Your task to perform on an android device: toggle wifi Image 0: 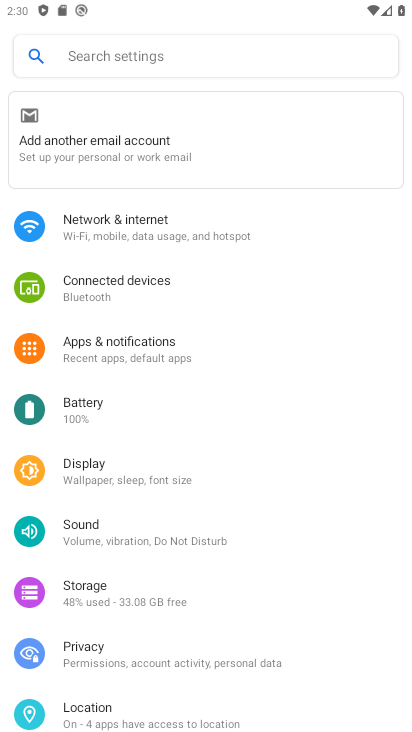
Step 0: press home button
Your task to perform on an android device: toggle wifi Image 1: 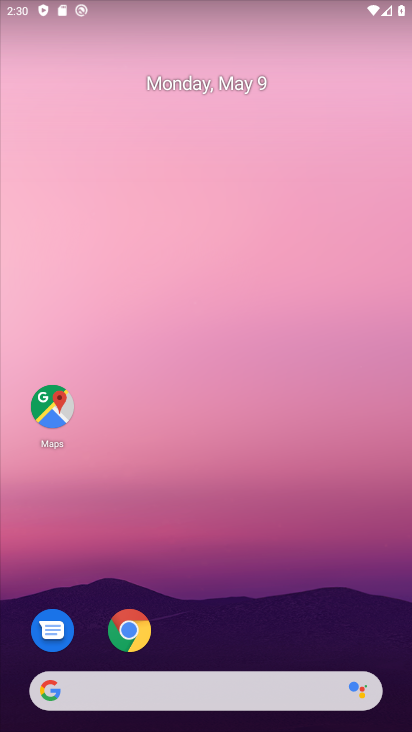
Step 1: drag from (343, 2) to (139, 729)
Your task to perform on an android device: toggle wifi Image 2: 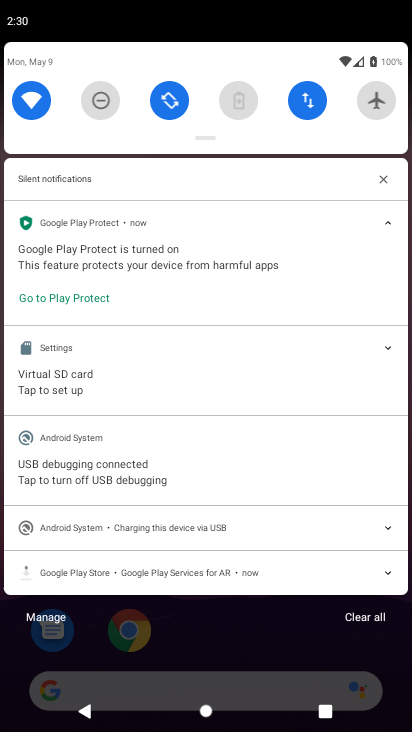
Step 2: click (30, 119)
Your task to perform on an android device: toggle wifi Image 3: 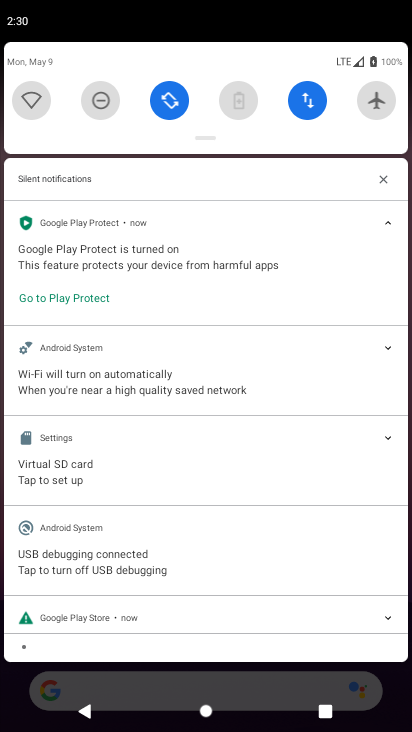
Step 3: task complete